Your task to perform on an android device: Open Google Maps Image 0: 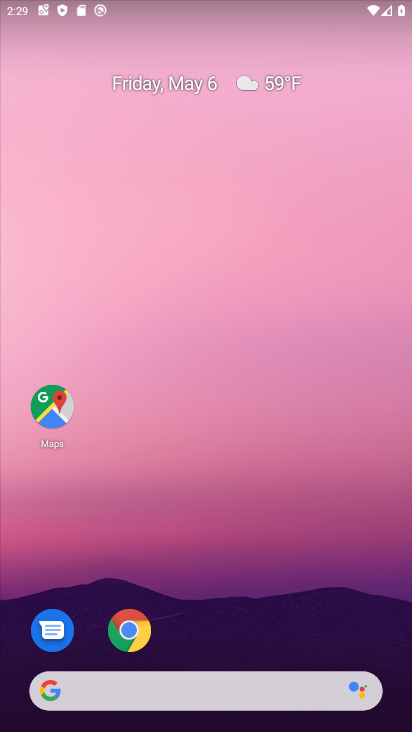
Step 0: click (57, 420)
Your task to perform on an android device: Open Google Maps Image 1: 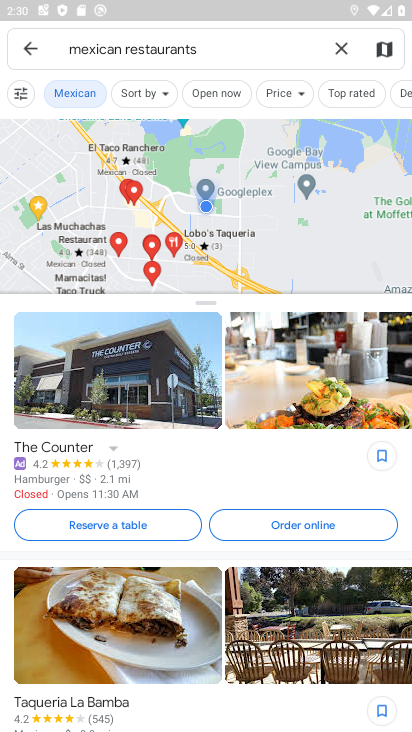
Step 1: task complete